Your task to perform on an android device: What's on the menu at Panera? Image 0: 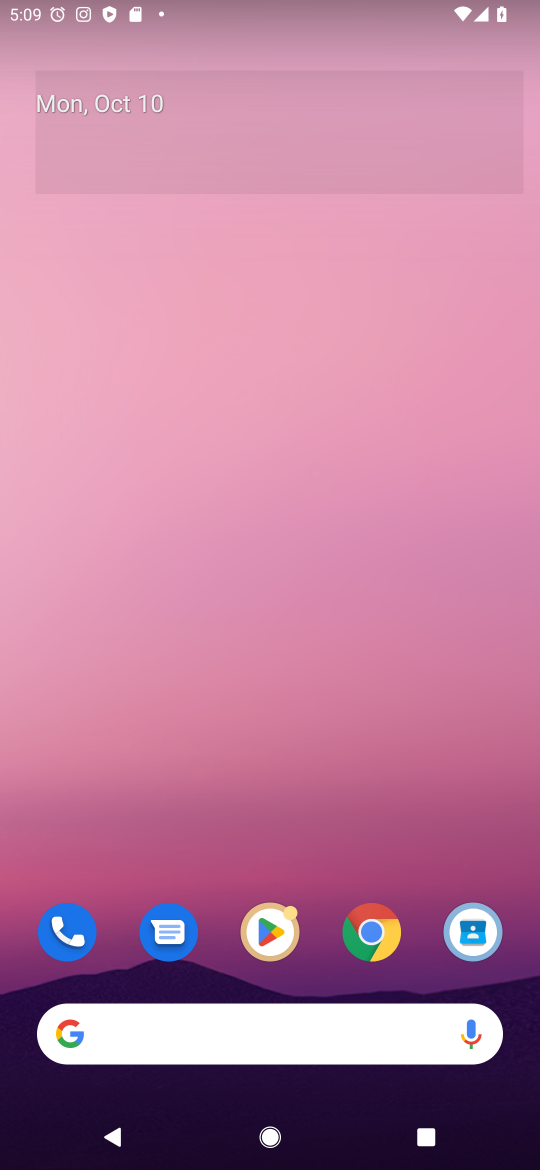
Step 0: press home button
Your task to perform on an android device: What's on the menu at Panera? Image 1: 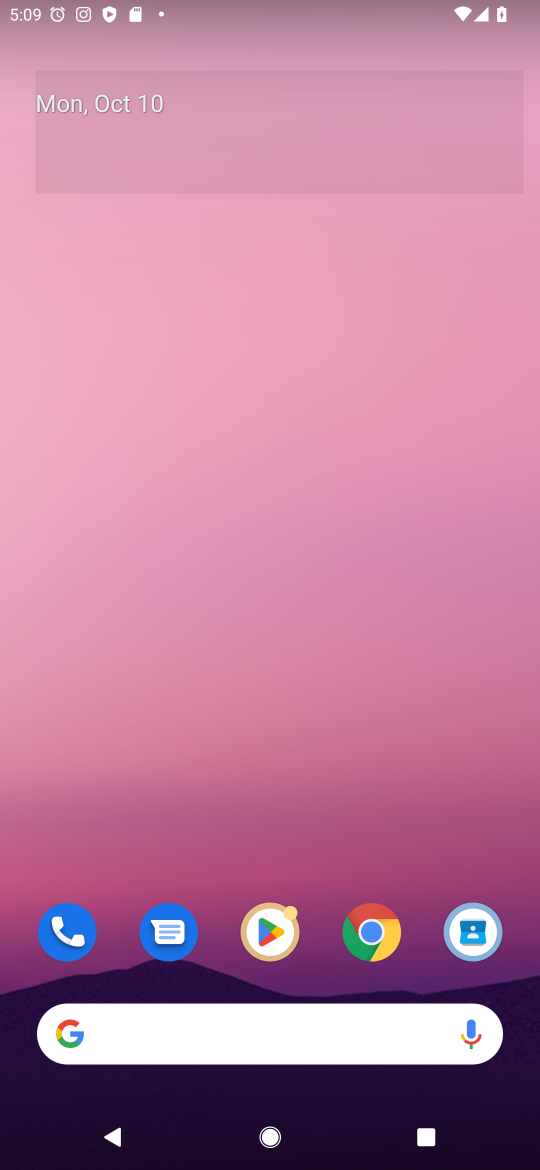
Step 1: click (346, 1041)
Your task to perform on an android device: What's on the menu at Panera? Image 2: 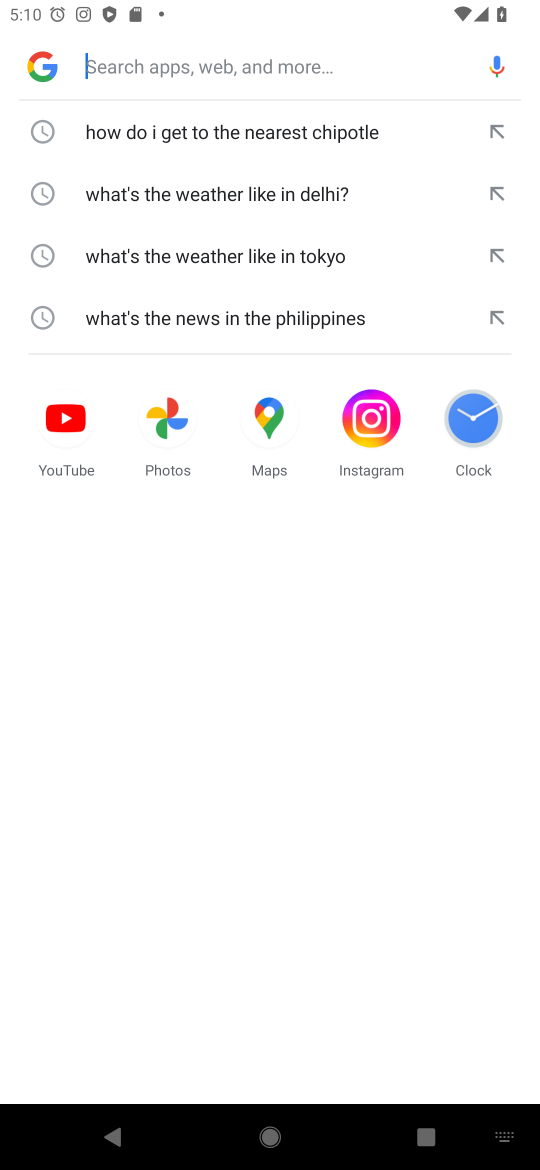
Step 2: type "What's on the menu at Panera"
Your task to perform on an android device: What's on the menu at Panera? Image 3: 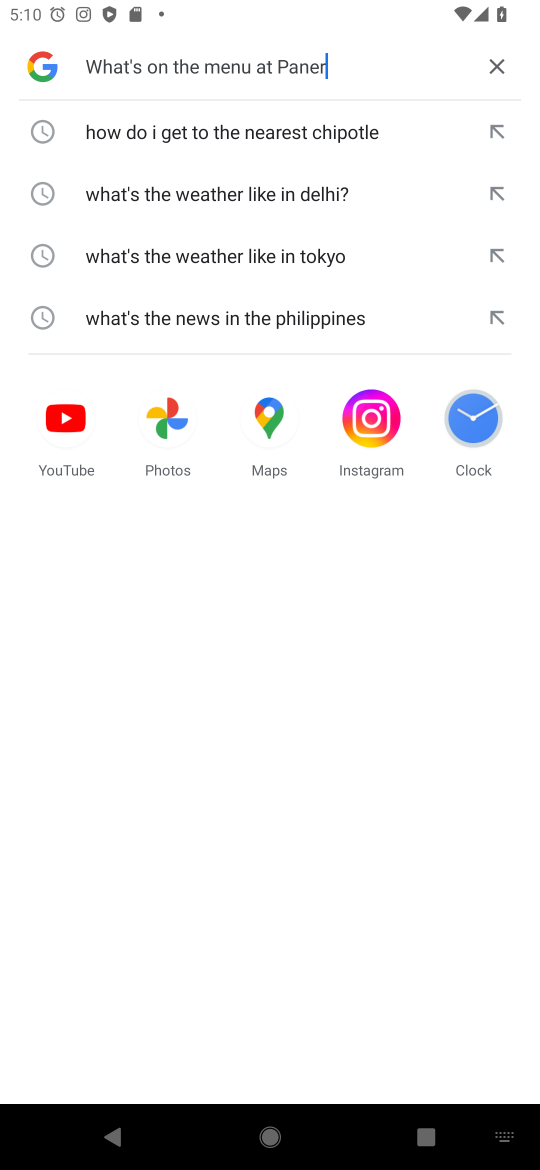
Step 3: press enter
Your task to perform on an android device: What's on the menu at Panera? Image 4: 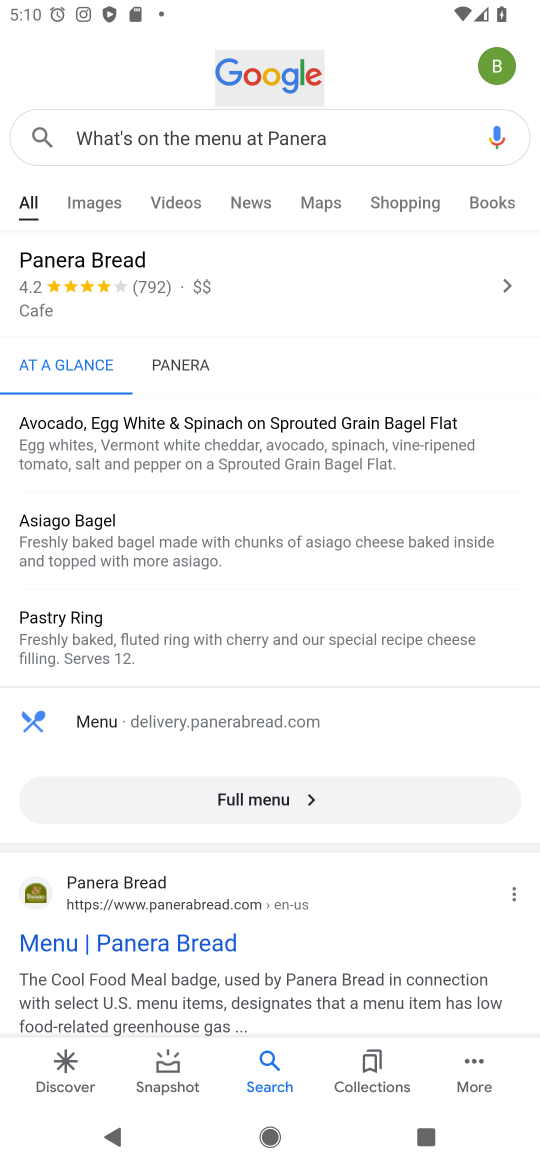
Step 4: click (173, 936)
Your task to perform on an android device: What's on the menu at Panera? Image 5: 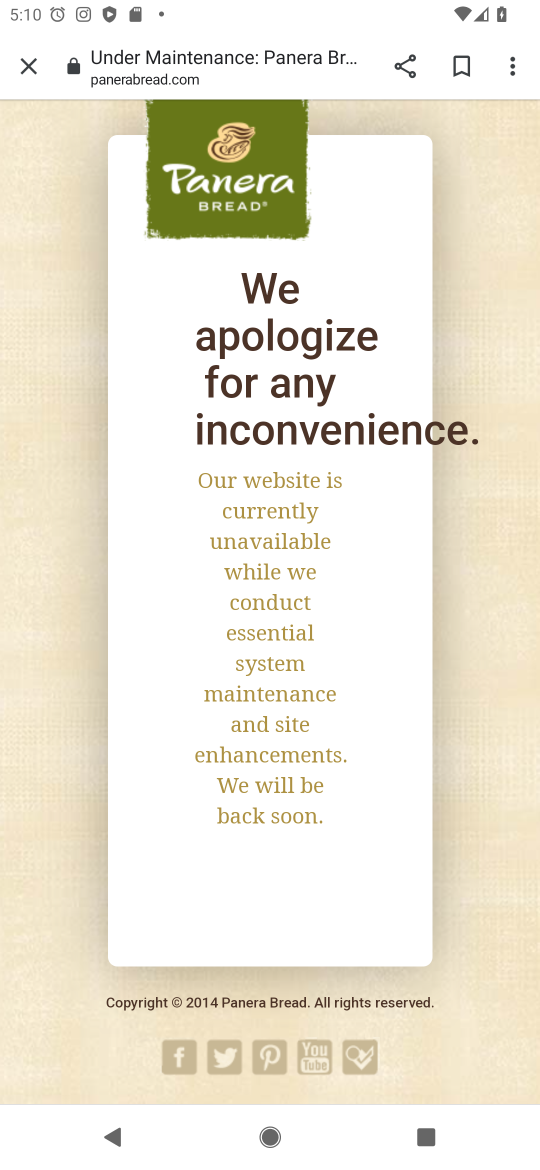
Step 5: drag from (474, 938) to (488, 343)
Your task to perform on an android device: What's on the menu at Panera? Image 6: 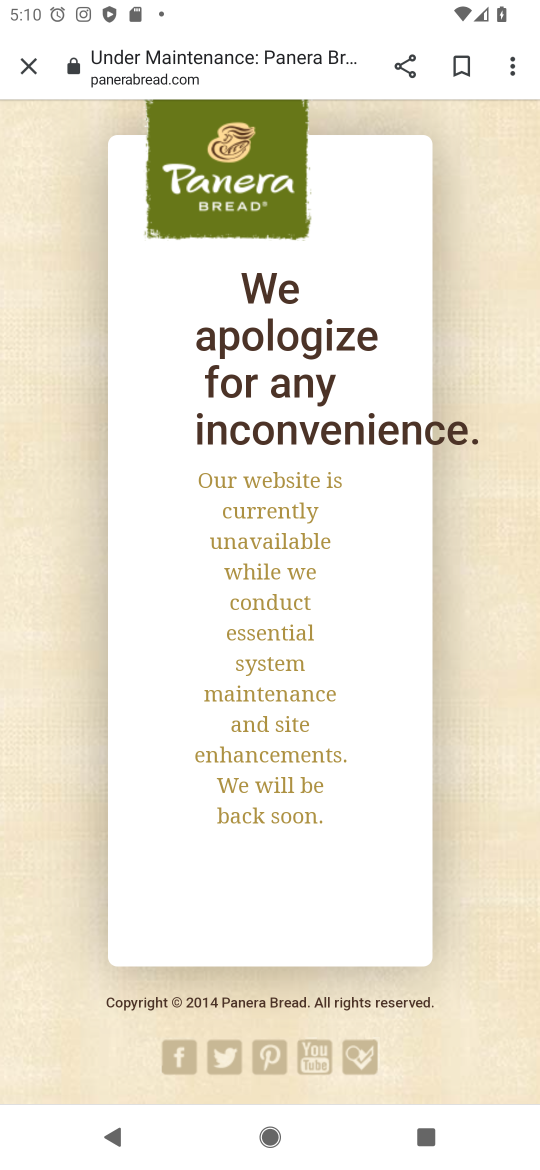
Step 6: press back button
Your task to perform on an android device: What's on the menu at Panera? Image 7: 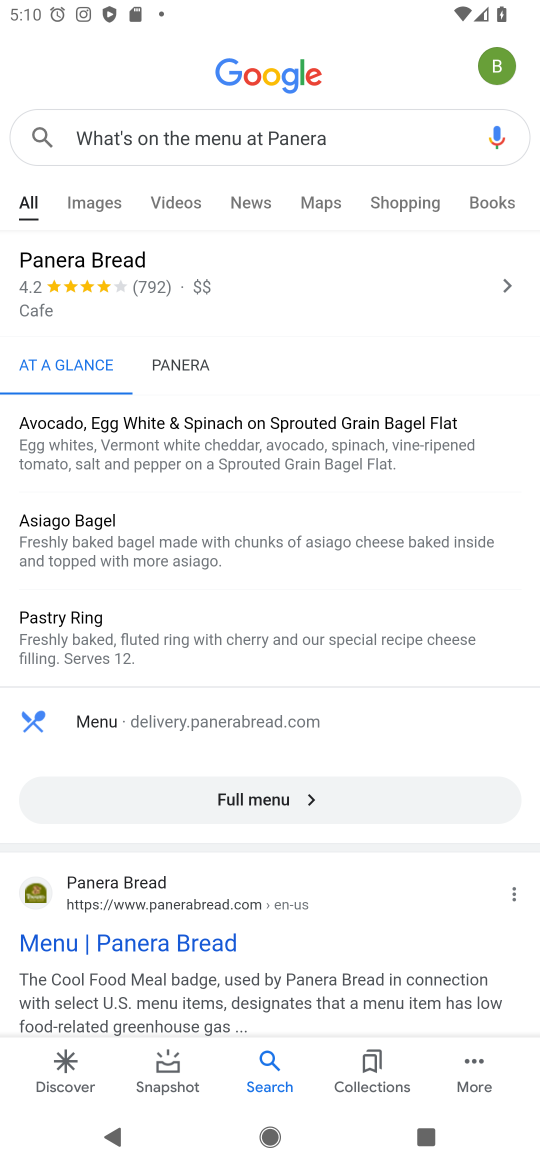
Step 7: click (274, 797)
Your task to perform on an android device: What's on the menu at Panera? Image 8: 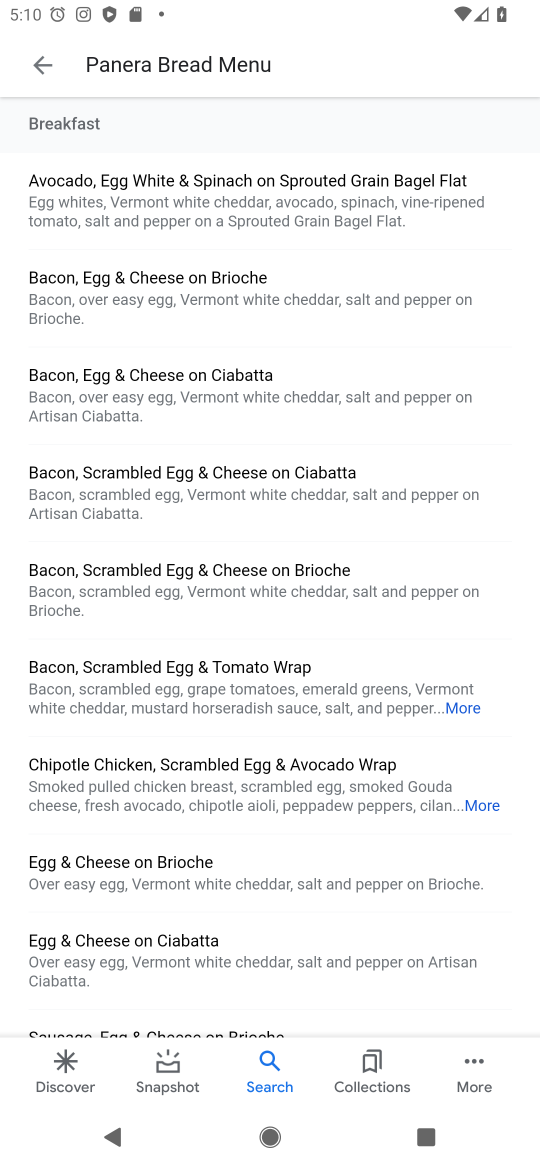
Step 8: task complete